Your task to perform on an android device: turn on showing notifications on the lock screen Image 0: 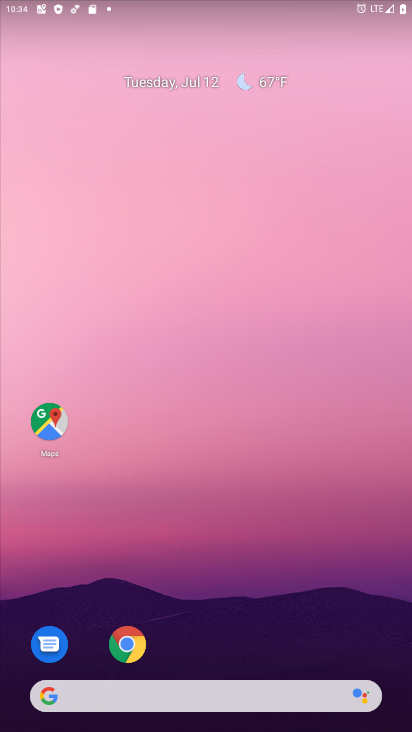
Step 0: drag from (189, 644) to (232, 190)
Your task to perform on an android device: turn on showing notifications on the lock screen Image 1: 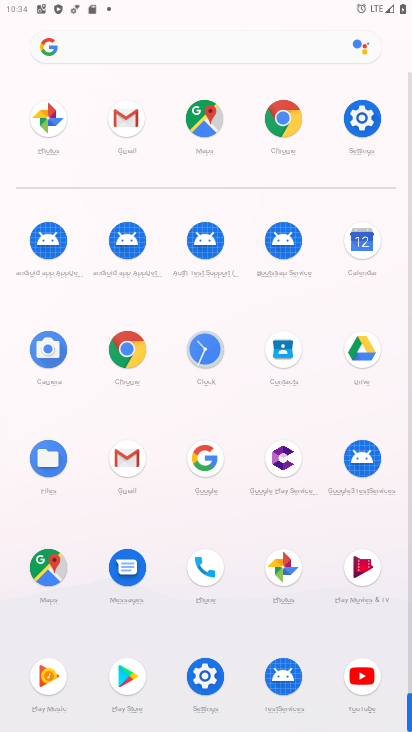
Step 1: click (208, 696)
Your task to perform on an android device: turn on showing notifications on the lock screen Image 2: 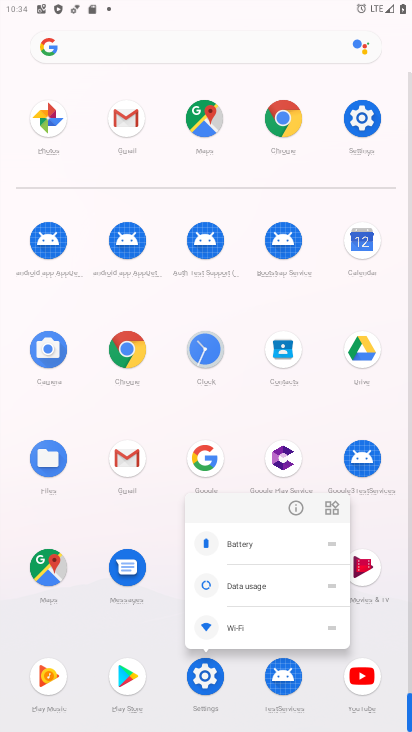
Step 2: click (294, 506)
Your task to perform on an android device: turn on showing notifications on the lock screen Image 3: 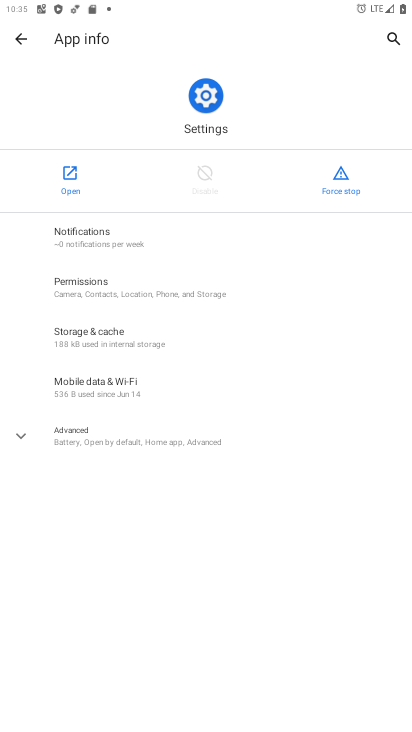
Step 3: click (61, 170)
Your task to perform on an android device: turn on showing notifications on the lock screen Image 4: 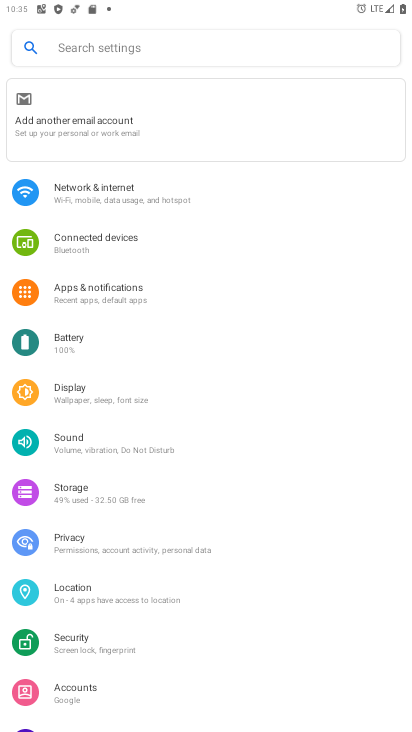
Step 4: click (90, 287)
Your task to perform on an android device: turn on showing notifications on the lock screen Image 5: 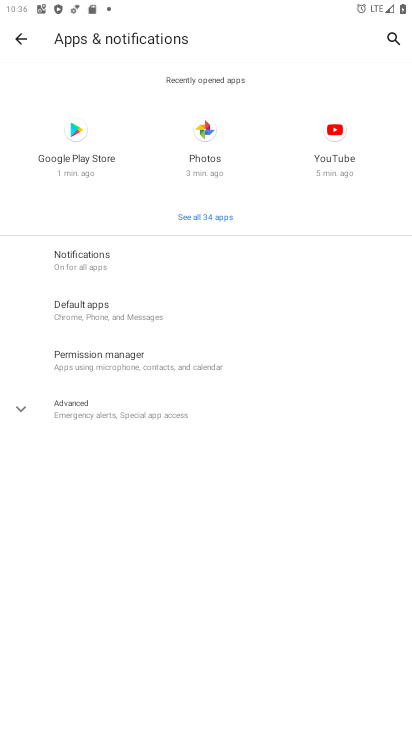
Step 5: click (84, 285)
Your task to perform on an android device: turn on showing notifications on the lock screen Image 6: 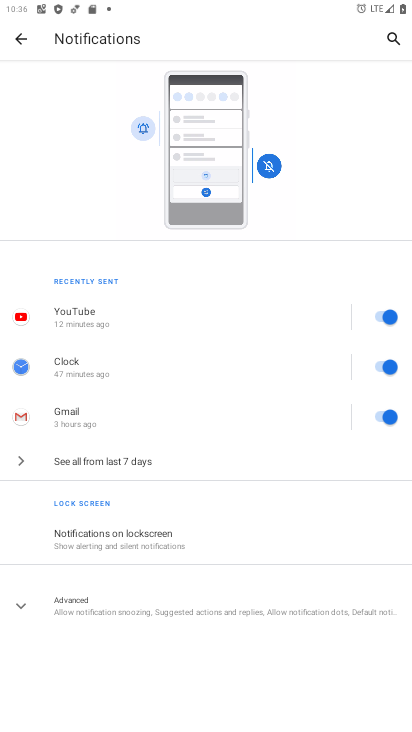
Step 6: click (98, 540)
Your task to perform on an android device: turn on showing notifications on the lock screen Image 7: 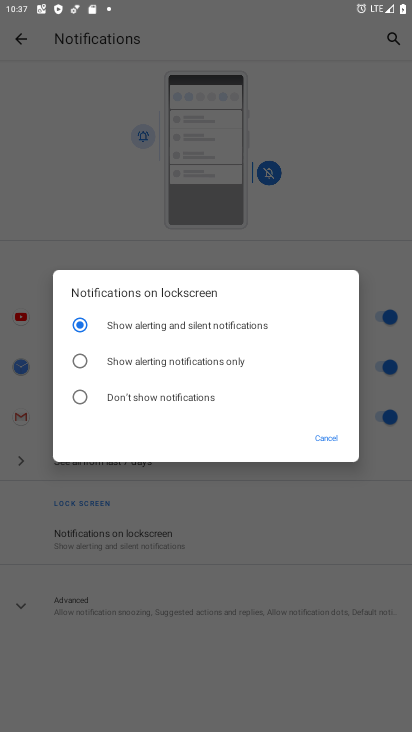
Step 7: click (125, 349)
Your task to perform on an android device: turn on showing notifications on the lock screen Image 8: 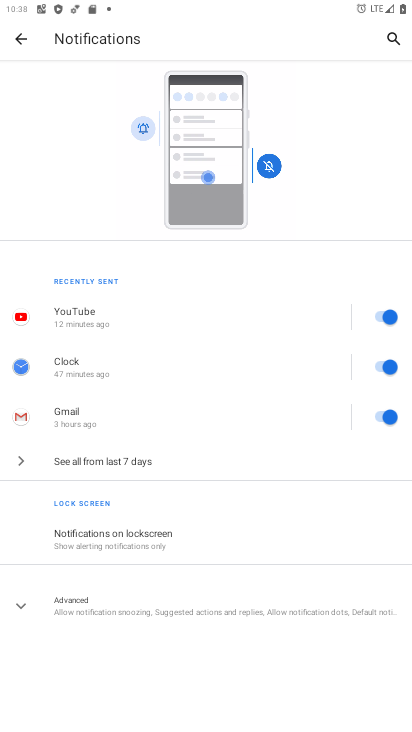
Step 8: task complete